Your task to perform on an android device: Go to Wikipedia Image 0: 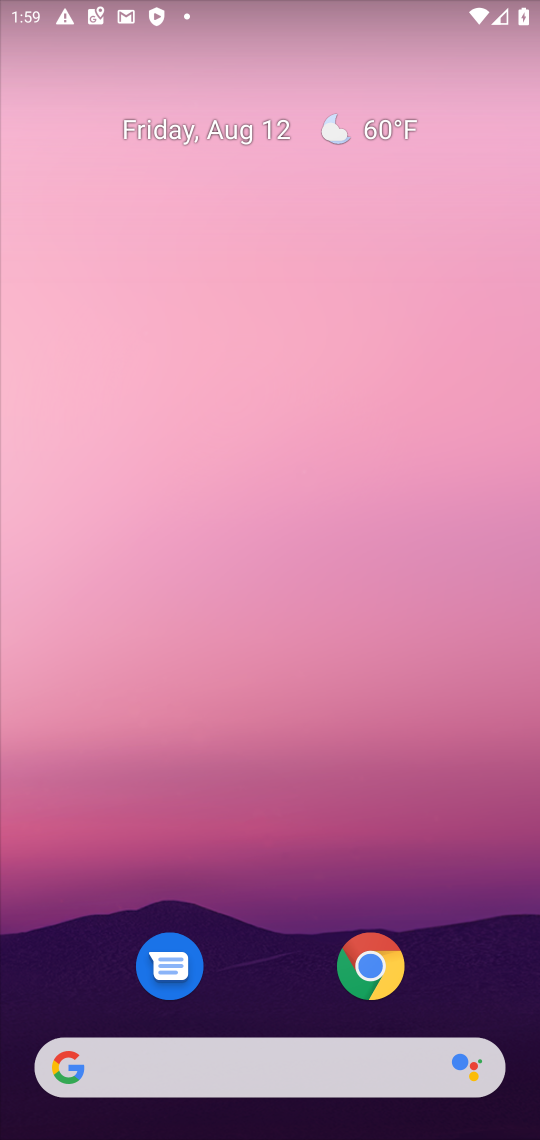
Step 0: drag from (296, 949) to (444, 172)
Your task to perform on an android device: Go to Wikipedia Image 1: 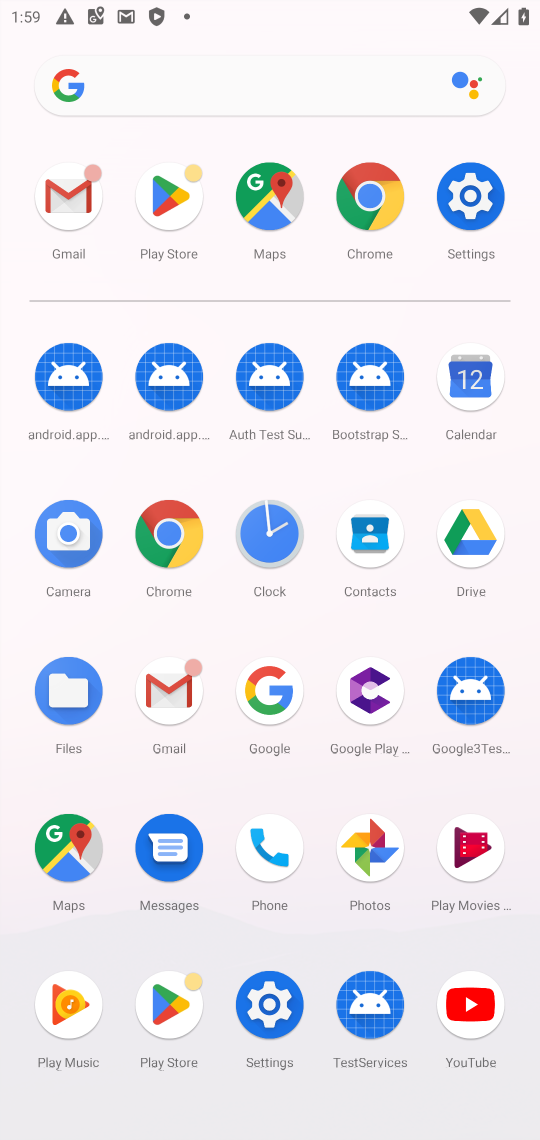
Step 1: click (365, 194)
Your task to perform on an android device: Go to Wikipedia Image 2: 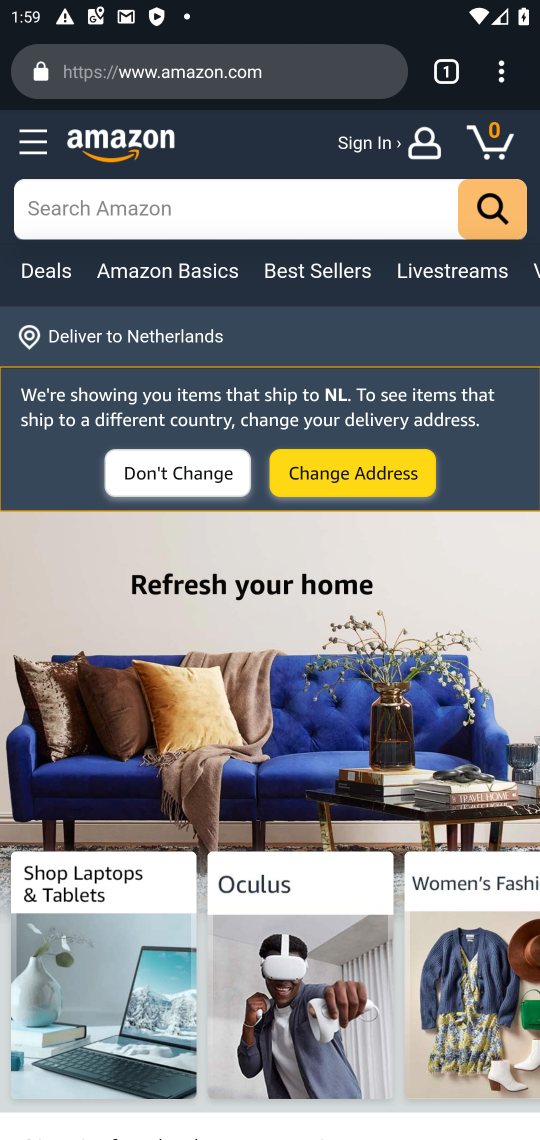
Step 2: click (316, 71)
Your task to perform on an android device: Go to Wikipedia Image 3: 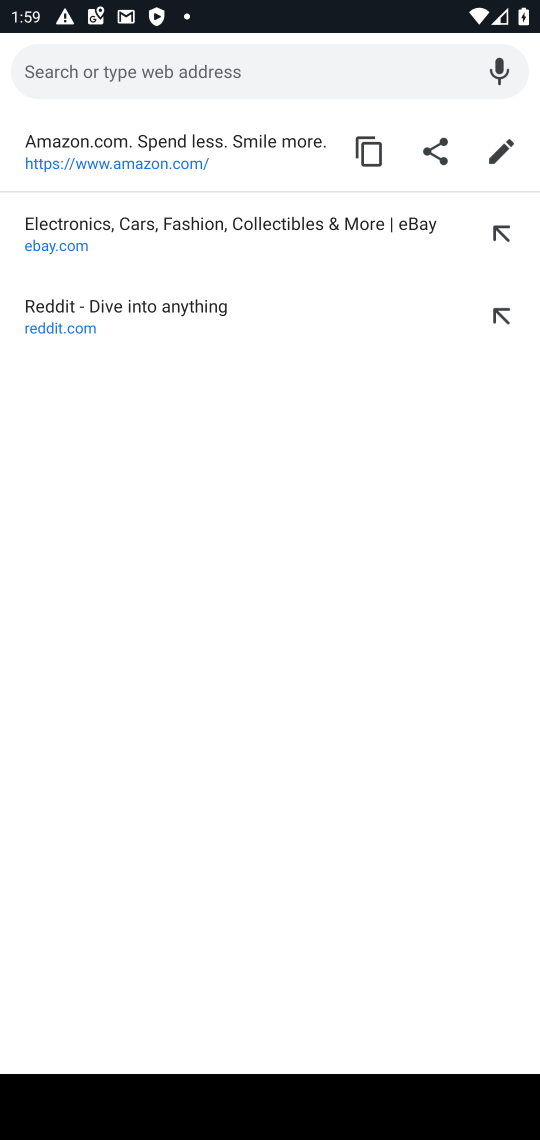
Step 3: type "wikipedia"
Your task to perform on an android device: Go to Wikipedia Image 4: 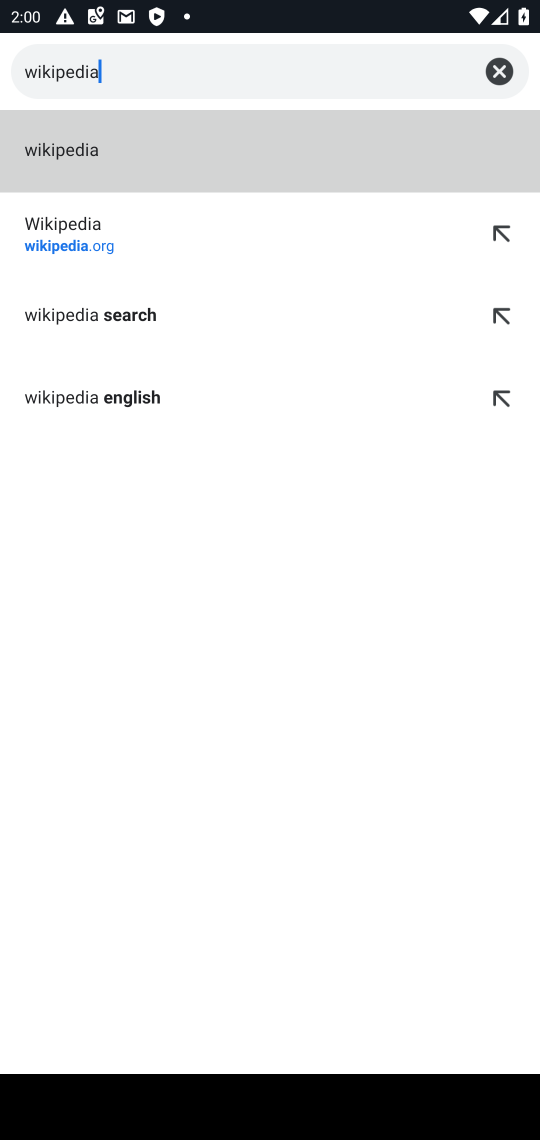
Step 4: click (60, 236)
Your task to perform on an android device: Go to Wikipedia Image 5: 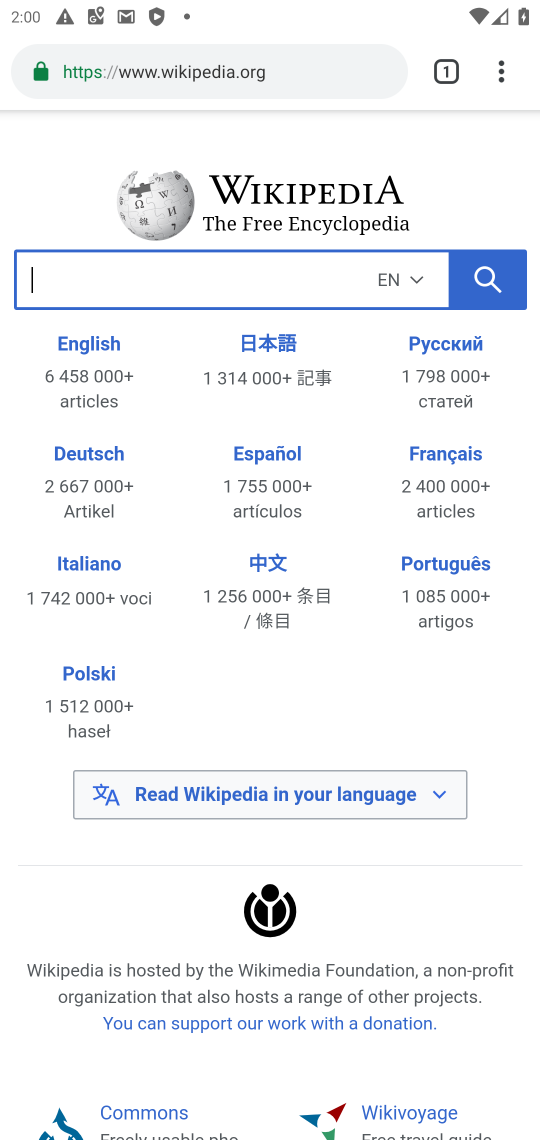
Step 5: task complete